Your task to perform on an android device: Open Google Maps Image 0: 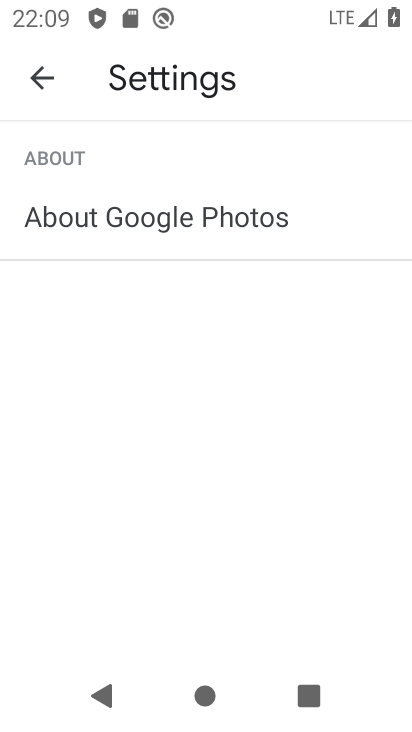
Step 0: press home button
Your task to perform on an android device: Open Google Maps Image 1: 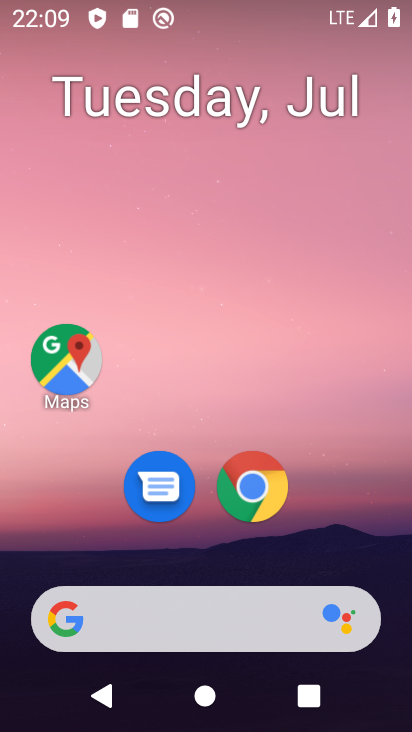
Step 1: drag from (359, 534) to (356, 161)
Your task to perform on an android device: Open Google Maps Image 2: 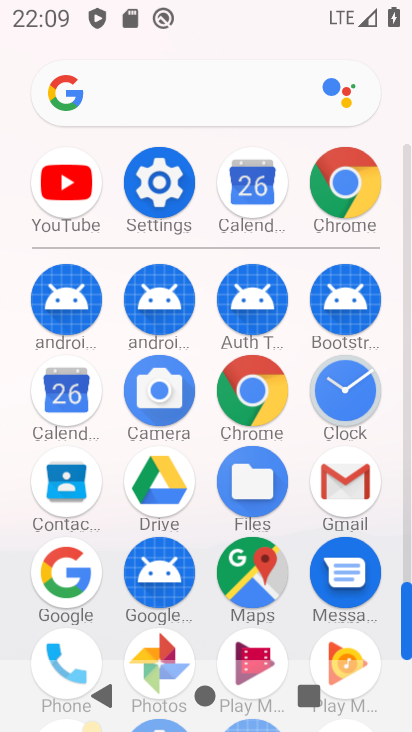
Step 2: click (249, 566)
Your task to perform on an android device: Open Google Maps Image 3: 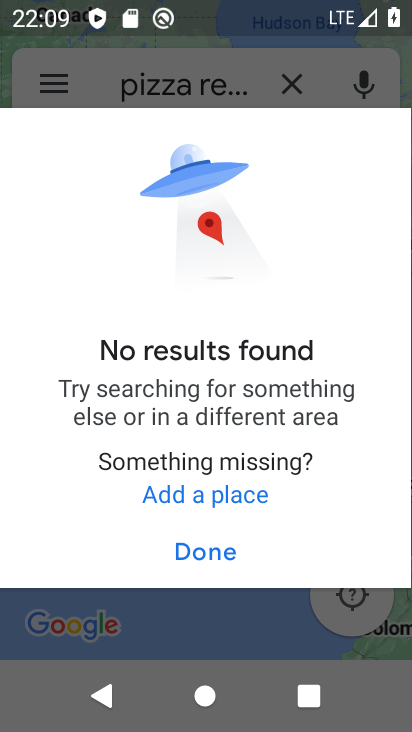
Step 3: click (226, 550)
Your task to perform on an android device: Open Google Maps Image 4: 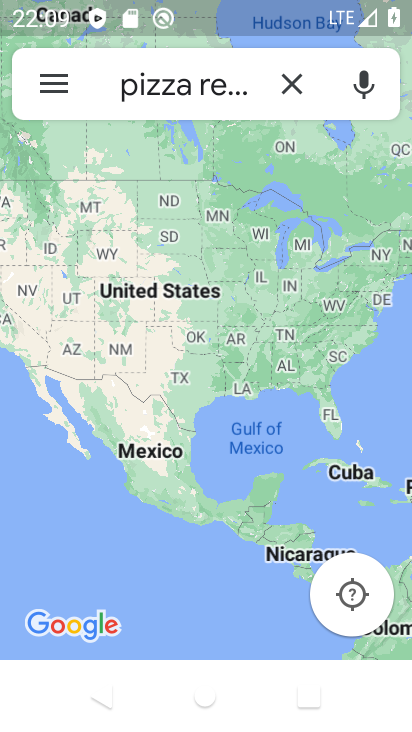
Step 4: task complete